Your task to perform on an android device: Open Google Image 0: 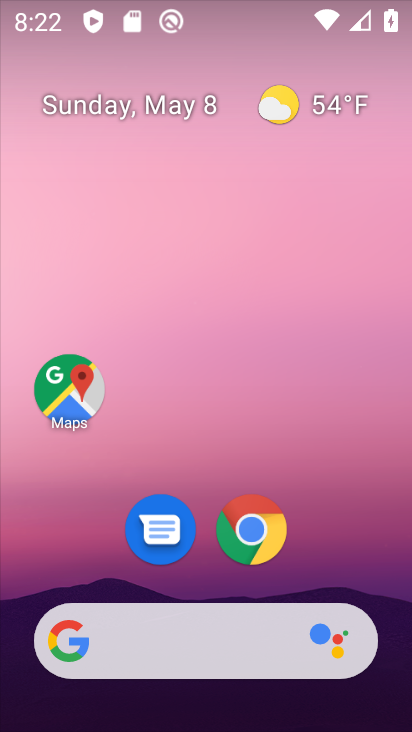
Step 0: drag from (359, 549) to (351, 109)
Your task to perform on an android device: Open Google Image 1: 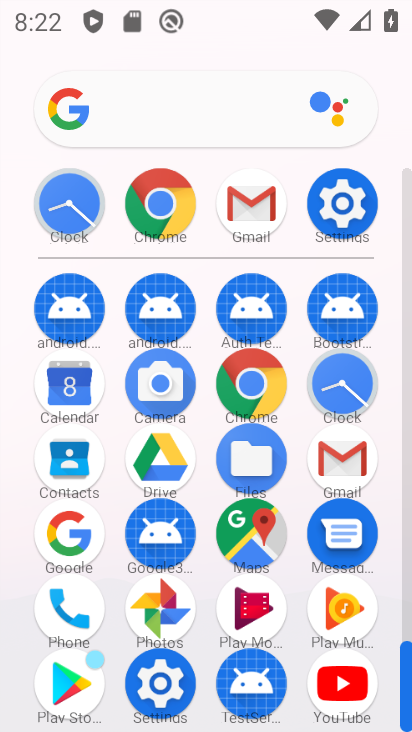
Step 1: click (50, 552)
Your task to perform on an android device: Open Google Image 2: 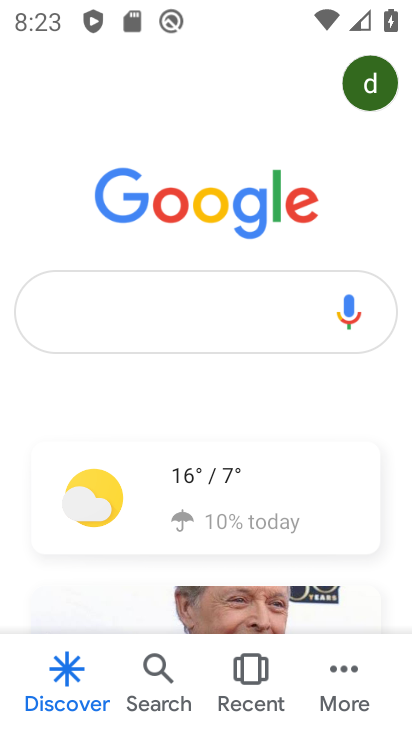
Step 2: task complete